Your task to perform on an android device: Open ESPN.com Image 0: 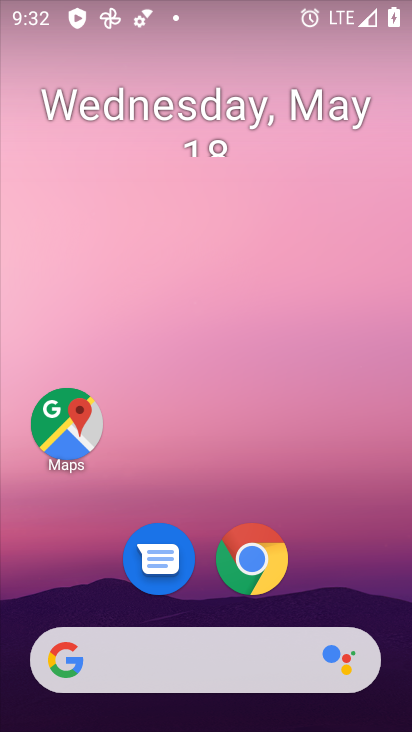
Step 0: drag from (325, 546) to (90, 19)
Your task to perform on an android device: Open ESPN.com Image 1: 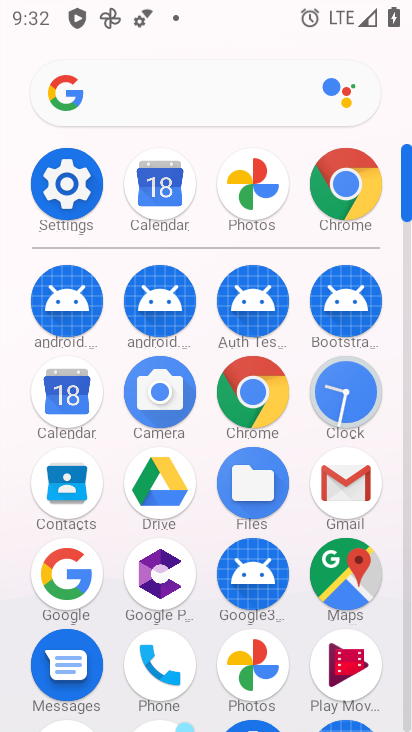
Step 1: drag from (14, 487) to (26, 216)
Your task to perform on an android device: Open ESPN.com Image 2: 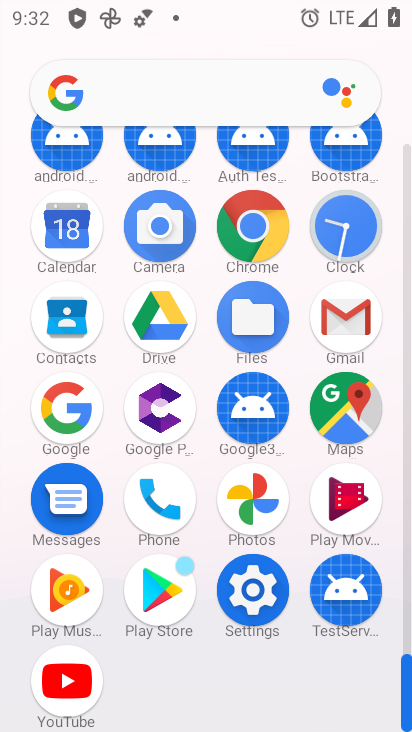
Step 2: click (257, 213)
Your task to perform on an android device: Open ESPN.com Image 3: 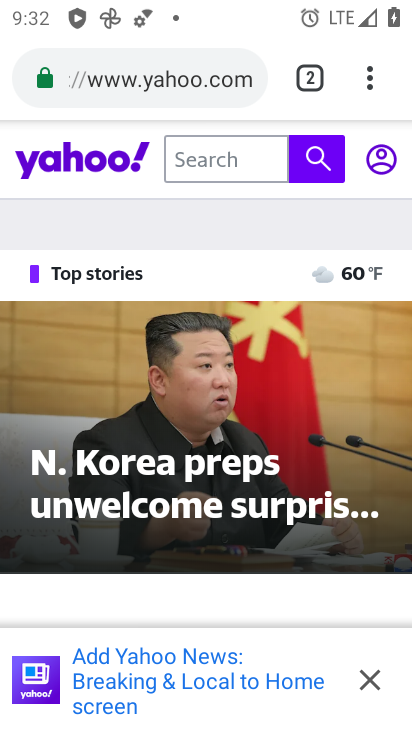
Step 3: click (188, 65)
Your task to perform on an android device: Open ESPN.com Image 4: 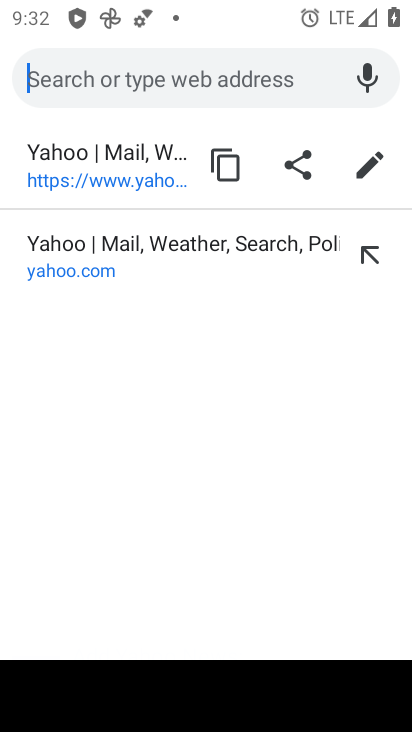
Step 4: click (141, 86)
Your task to perform on an android device: Open ESPN.com Image 5: 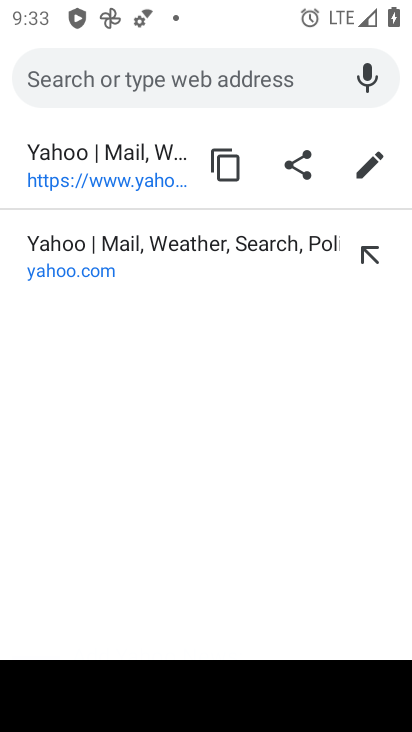
Step 5: click (274, 80)
Your task to perform on an android device: Open ESPN.com Image 6: 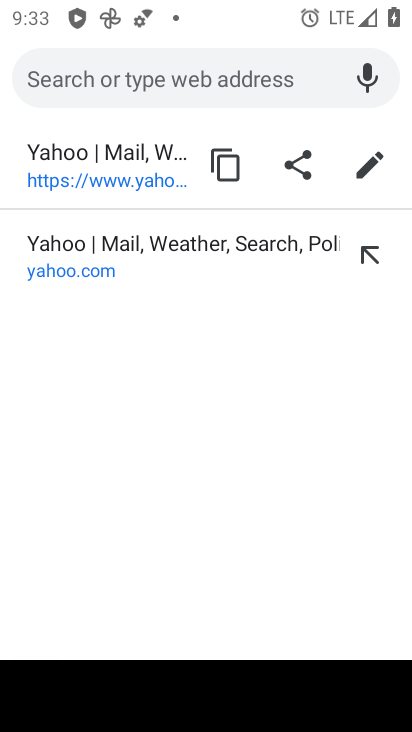
Step 6: type "ESPN.com"
Your task to perform on an android device: Open ESPN.com Image 7: 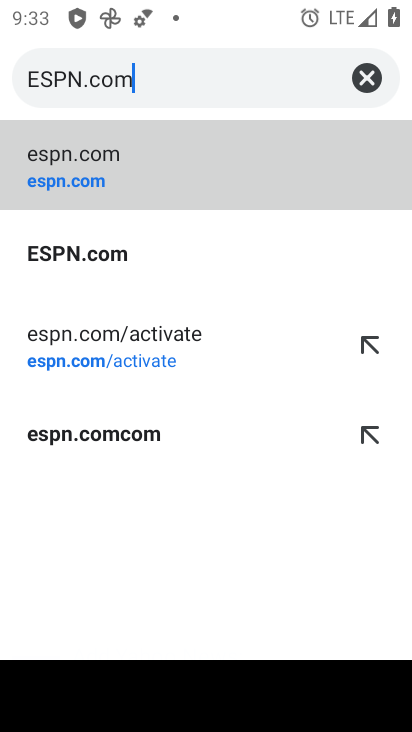
Step 7: type ""
Your task to perform on an android device: Open ESPN.com Image 8: 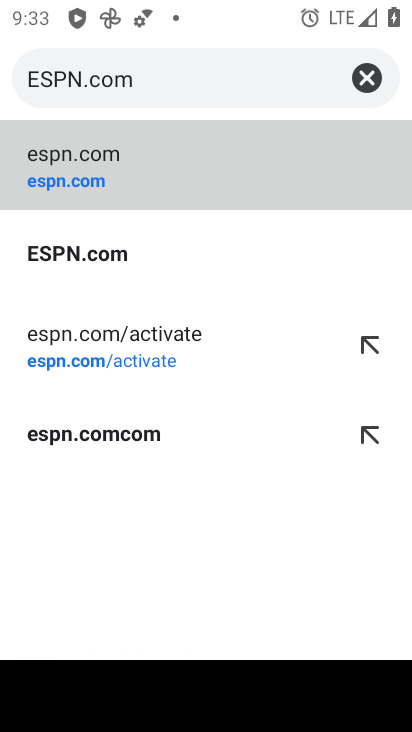
Step 8: click (214, 161)
Your task to perform on an android device: Open ESPN.com Image 9: 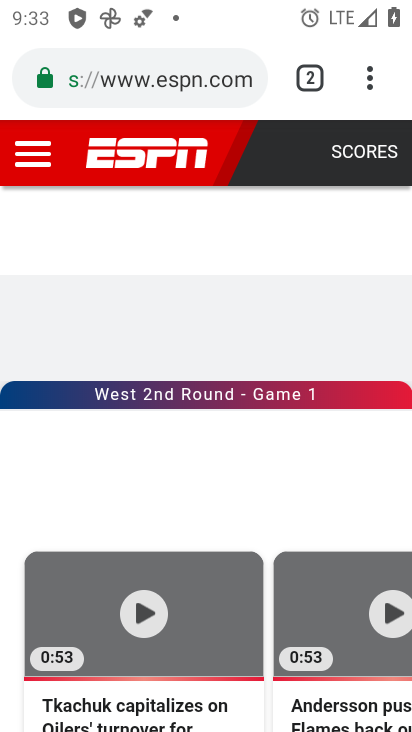
Step 9: task complete